Your task to perform on an android device: Go to Reddit.com Image 0: 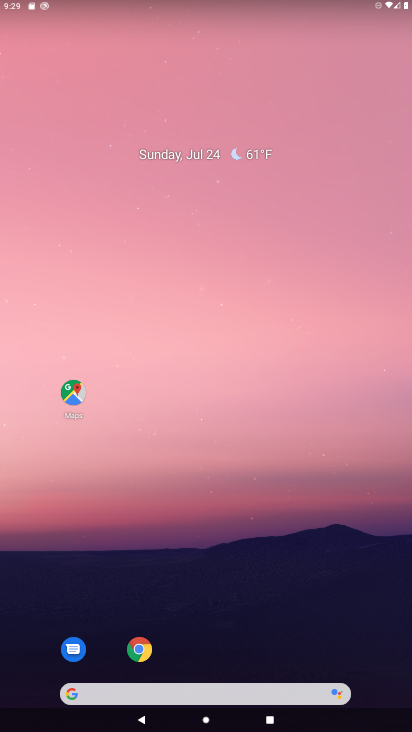
Step 0: drag from (241, 49) to (240, 12)
Your task to perform on an android device: Go to Reddit.com Image 1: 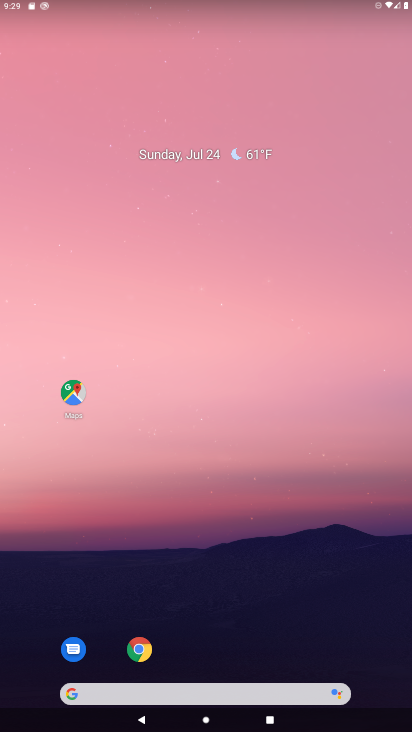
Step 1: drag from (293, 627) to (317, 76)
Your task to perform on an android device: Go to Reddit.com Image 2: 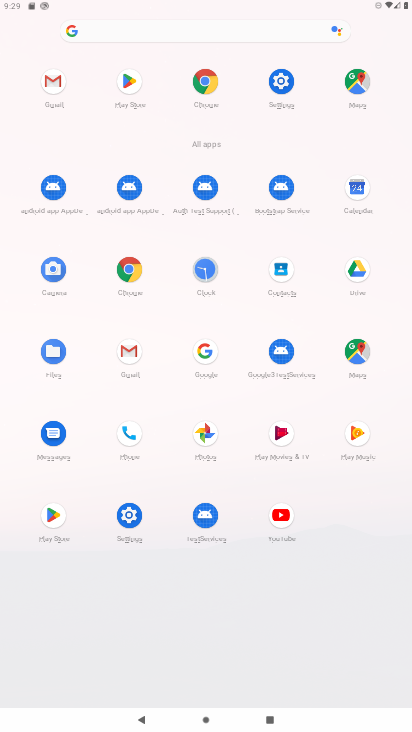
Step 2: click (206, 71)
Your task to perform on an android device: Go to Reddit.com Image 3: 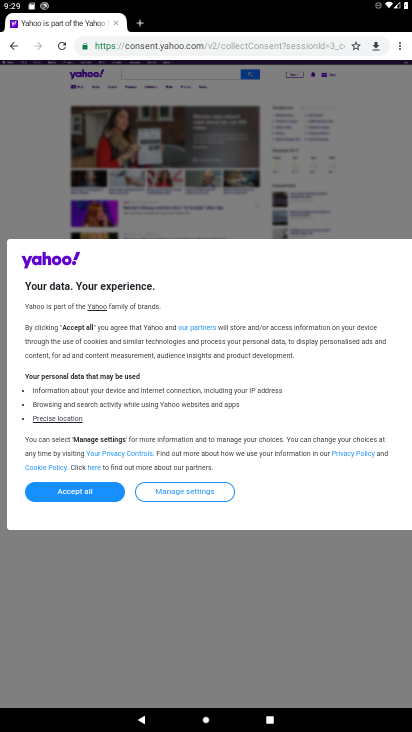
Step 3: click (205, 45)
Your task to perform on an android device: Go to Reddit.com Image 4: 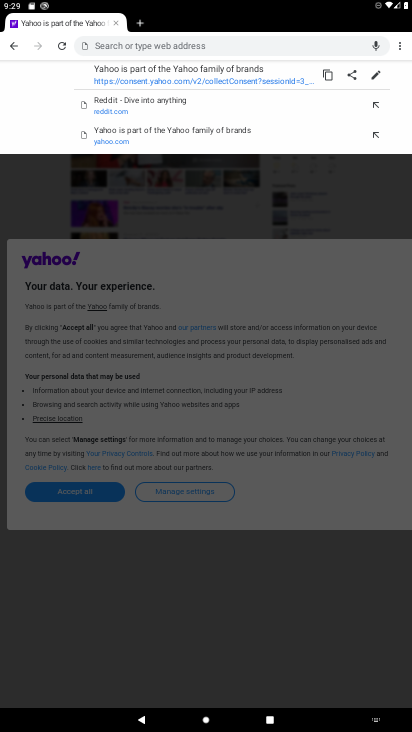
Step 4: type "reddit.com"
Your task to perform on an android device: Go to Reddit.com Image 5: 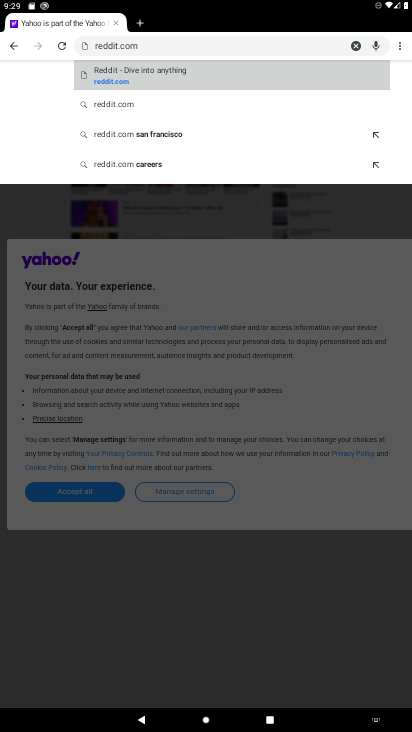
Step 5: click (94, 77)
Your task to perform on an android device: Go to Reddit.com Image 6: 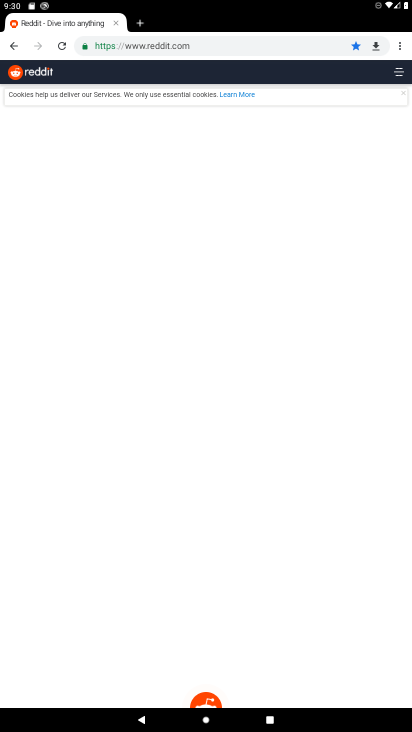
Step 6: task complete